Your task to perform on an android device: change the clock display to analog Image 0: 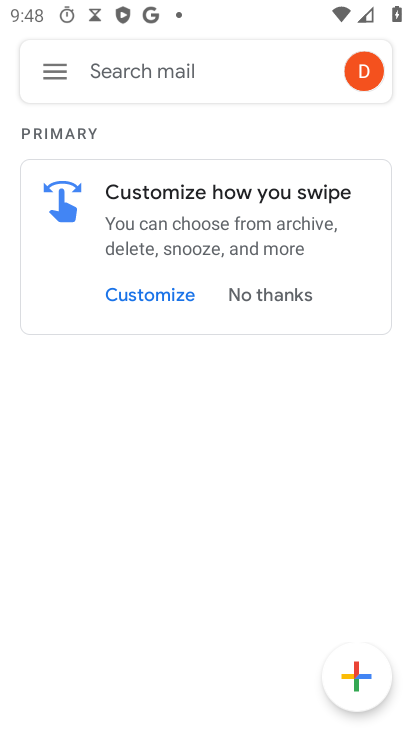
Step 0: press home button
Your task to perform on an android device: change the clock display to analog Image 1: 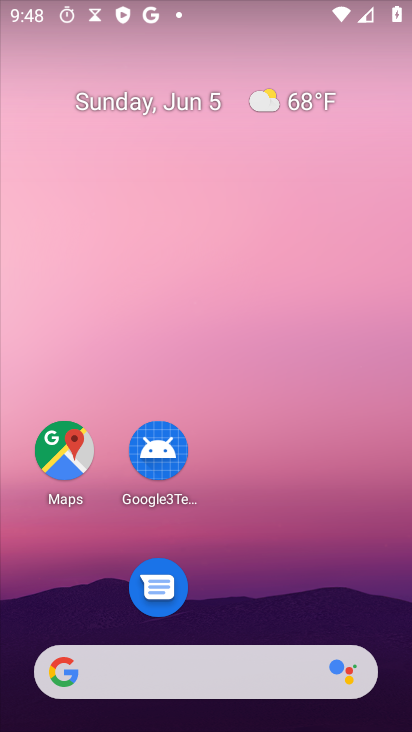
Step 1: drag from (237, 573) to (89, 200)
Your task to perform on an android device: change the clock display to analog Image 2: 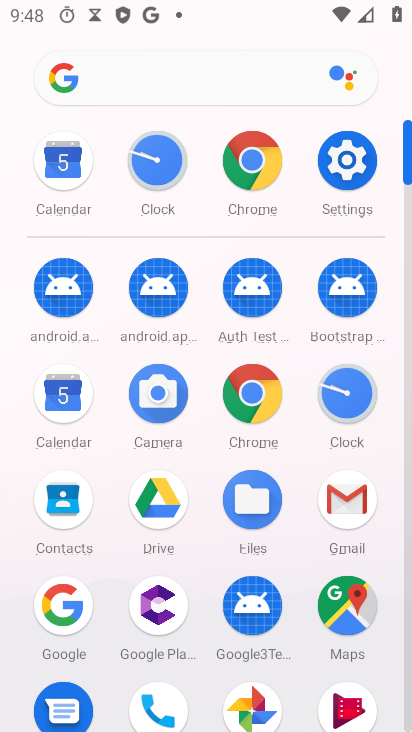
Step 2: click (336, 383)
Your task to perform on an android device: change the clock display to analog Image 3: 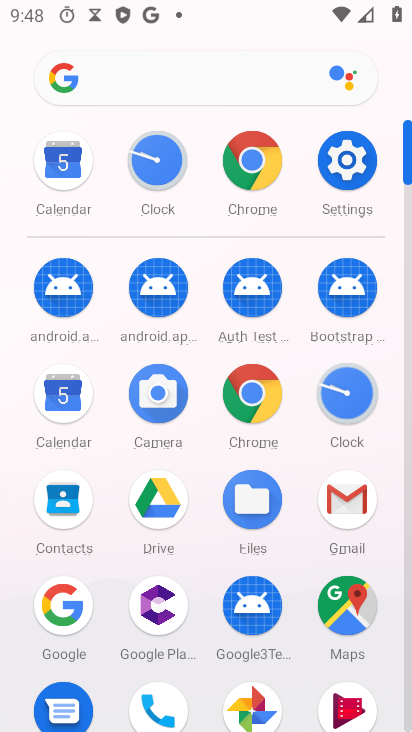
Step 3: click (336, 383)
Your task to perform on an android device: change the clock display to analog Image 4: 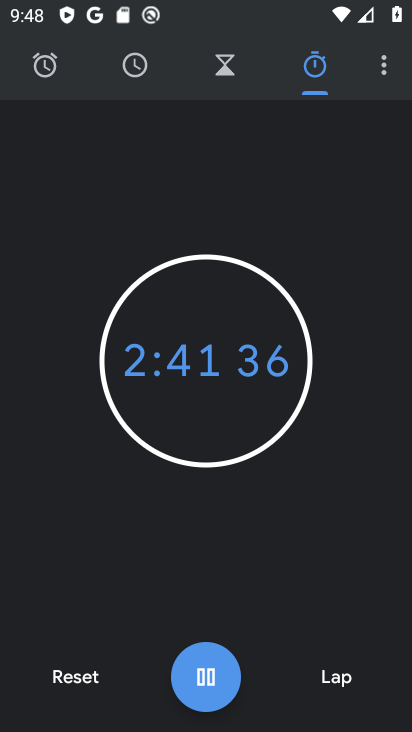
Step 4: click (380, 70)
Your task to perform on an android device: change the clock display to analog Image 5: 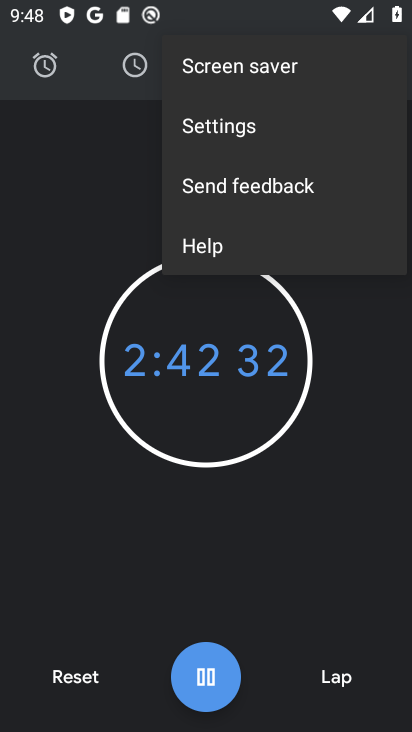
Step 5: click (380, 70)
Your task to perform on an android device: change the clock display to analog Image 6: 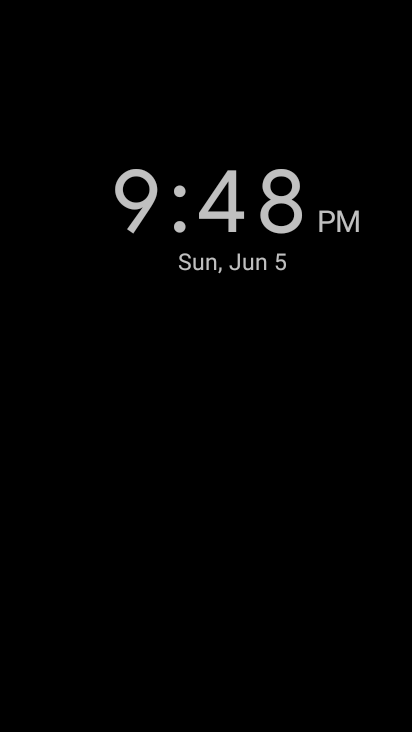
Step 6: press back button
Your task to perform on an android device: change the clock display to analog Image 7: 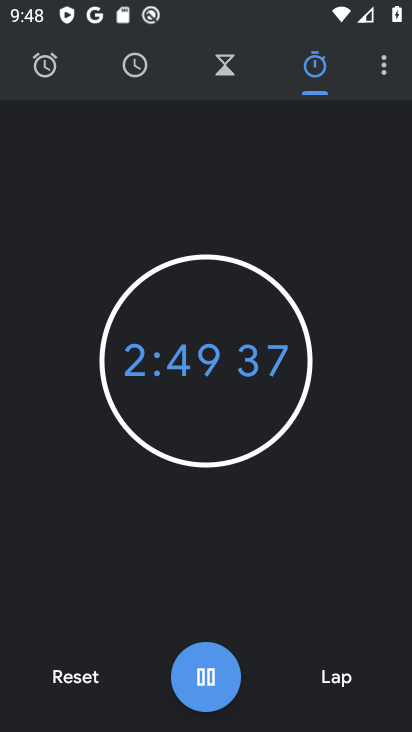
Step 7: press back button
Your task to perform on an android device: change the clock display to analog Image 8: 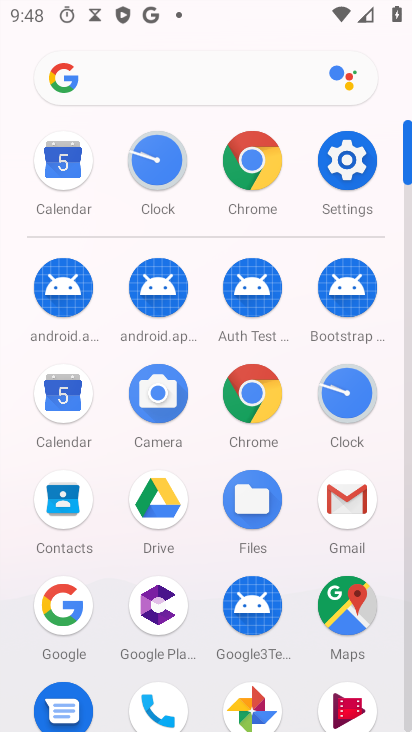
Step 8: click (350, 390)
Your task to perform on an android device: change the clock display to analog Image 9: 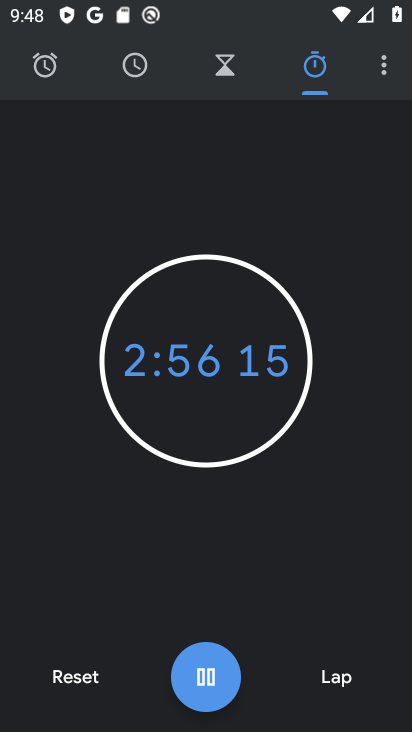
Step 9: click (386, 73)
Your task to perform on an android device: change the clock display to analog Image 10: 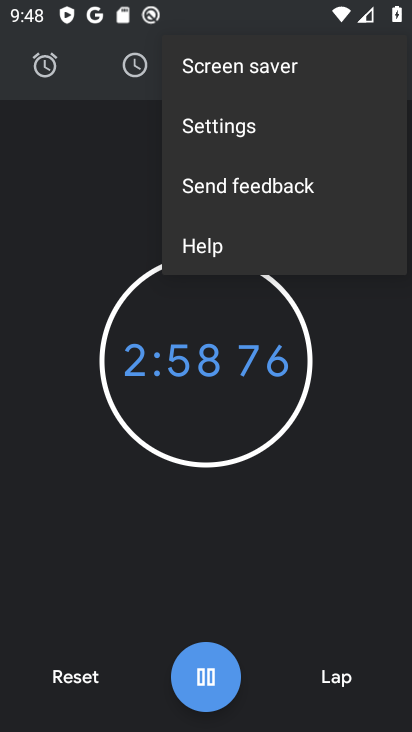
Step 10: click (255, 133)
Your task to perform on an android device: change the clock display to analog Image 11: 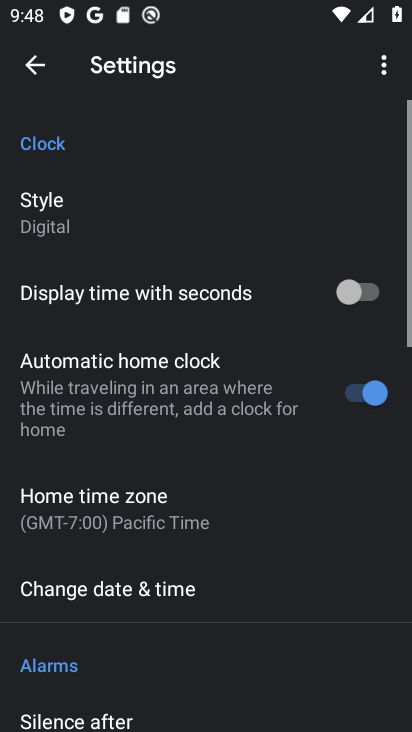
Step 11: click (101, 329)
Your task to perform on an android device: change the clock display to analog Image 12: 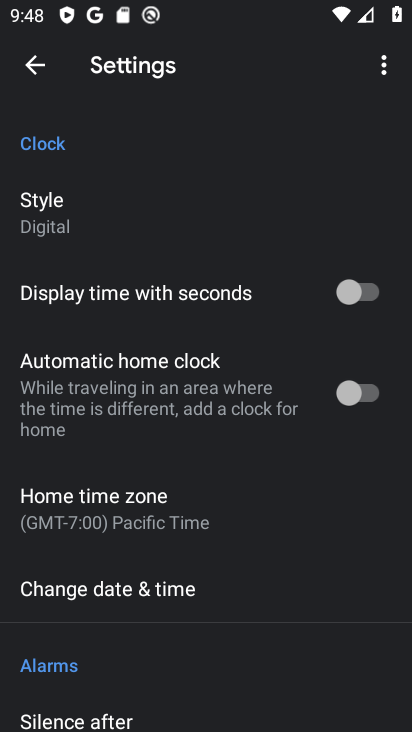
Step 12: click (46, 226)
Your task to perform on an android device: change the clock display to analog Image 13: 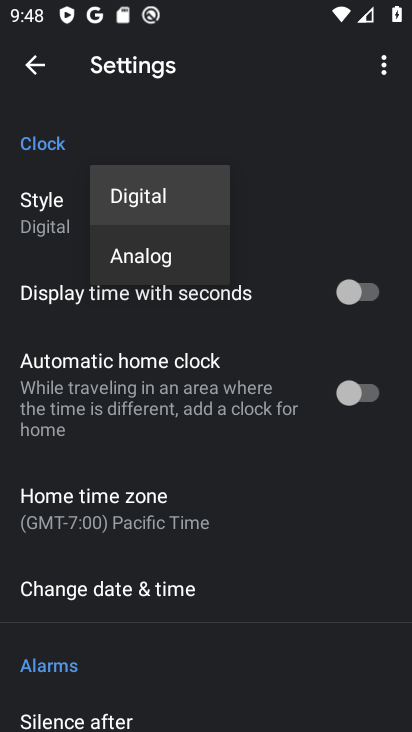
Step 13: click (105, 254)
Your task to perform on an android device: change the clock display to analog Image 14: 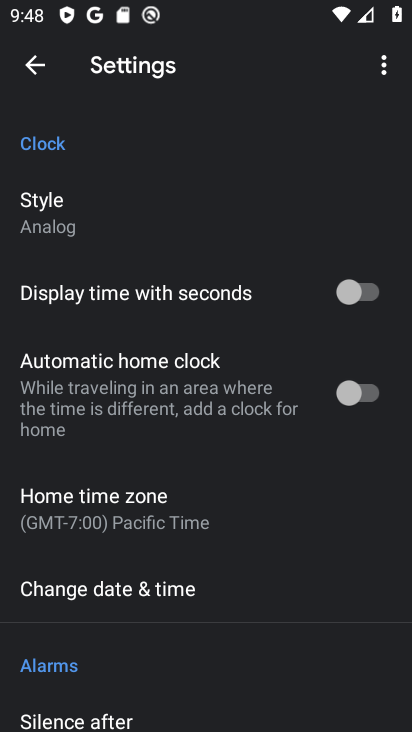
Step 14: task complete